Your task to perform on an android device: Go to Yahoo.com Image 0: 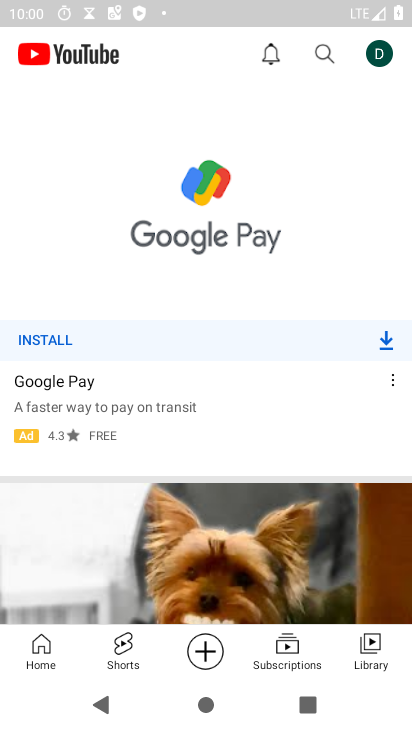
Step 0: press home button
Your task to perform on an android device: Go to Yahoo.com Image 1: 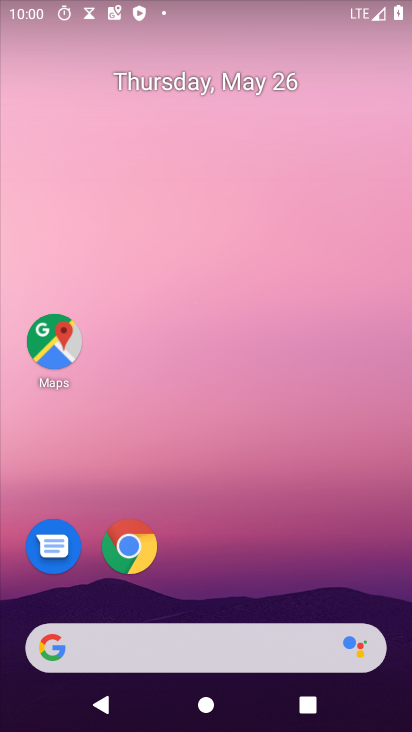
Step 1: drag from (371, 566) to (368, 169)
Your task to perform on an android device: Go to Yahoo.com Image 2: 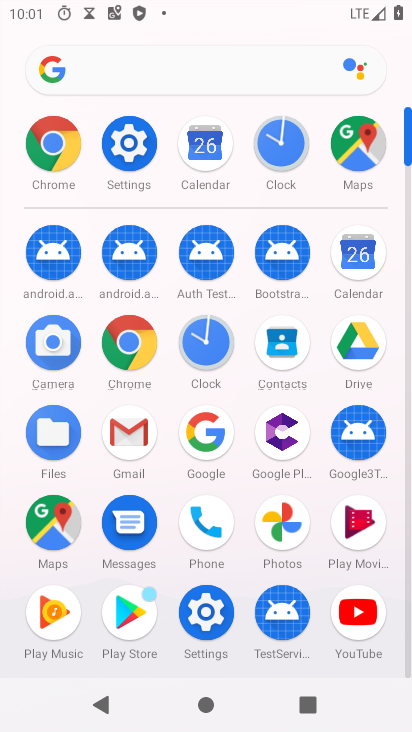
Step 2: drag from (243, 507) to (237, 288)
Your task to perform on an android device: Go to Yahoo.com Image 3: 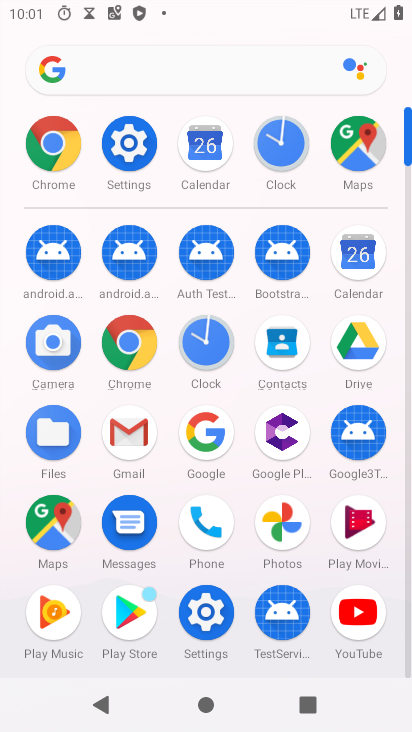
Step 3: click (149, 329)
Your task to perform on an android device: Go to Yahoo.com Image 4: 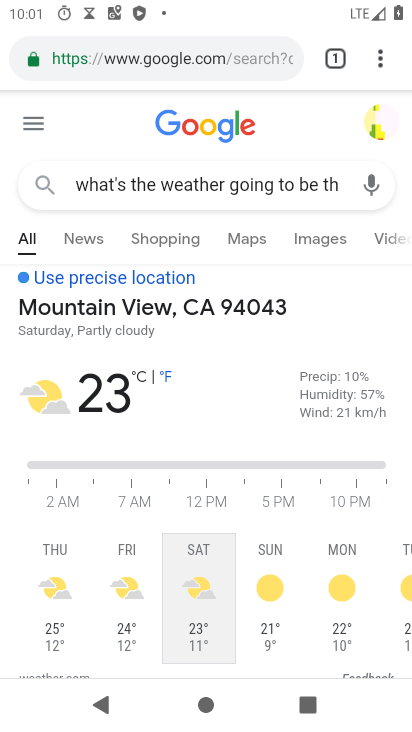
Step 4: click (202, 69)
Your task to perform on an android device: Go to Yahoo.com Image 5: 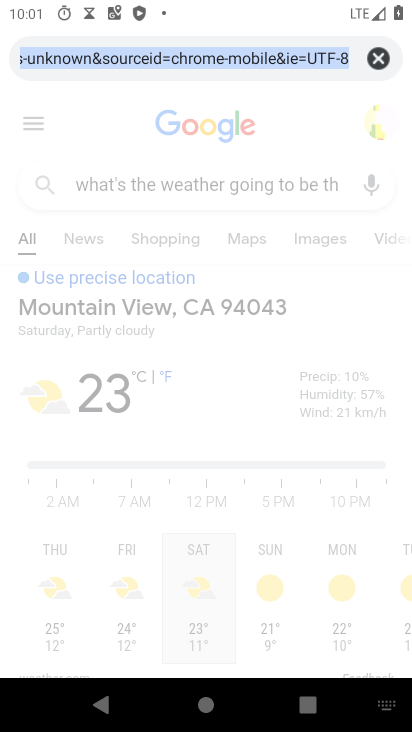
Step 5: click (388, 64)
Your task to perform on an android device: Go to Yahoo.com Image 6: 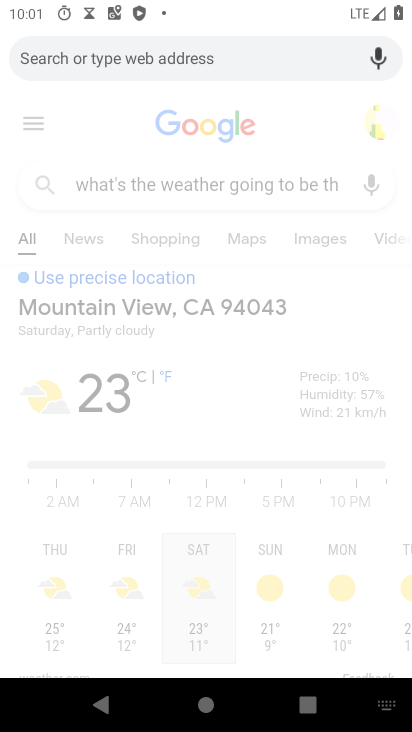
Step 6: type "yahoo.com"
Your task to perform on an android device: Go to Yahoo.com Image 7: 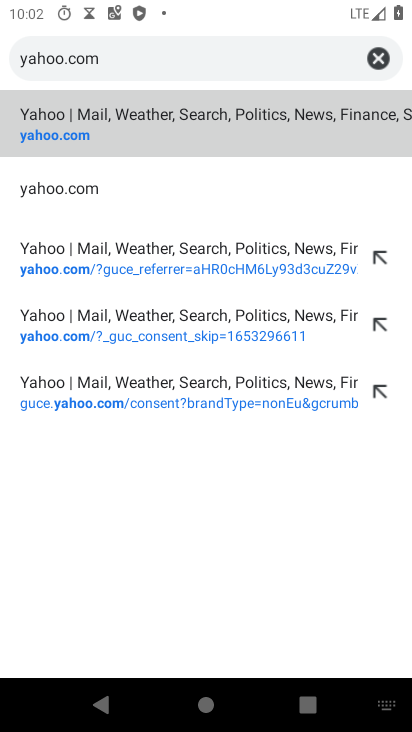
Step 7: click (113, 131)
Your task to perform on an android device: Go to Yahoo.com Image 8: 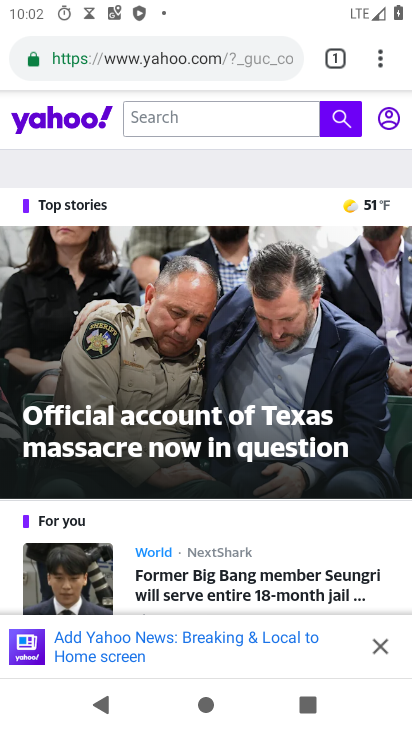
Step 8: task complete